Your task to perform on an android device: Open the Play Movies app and select the watchlist tab. Image 0: 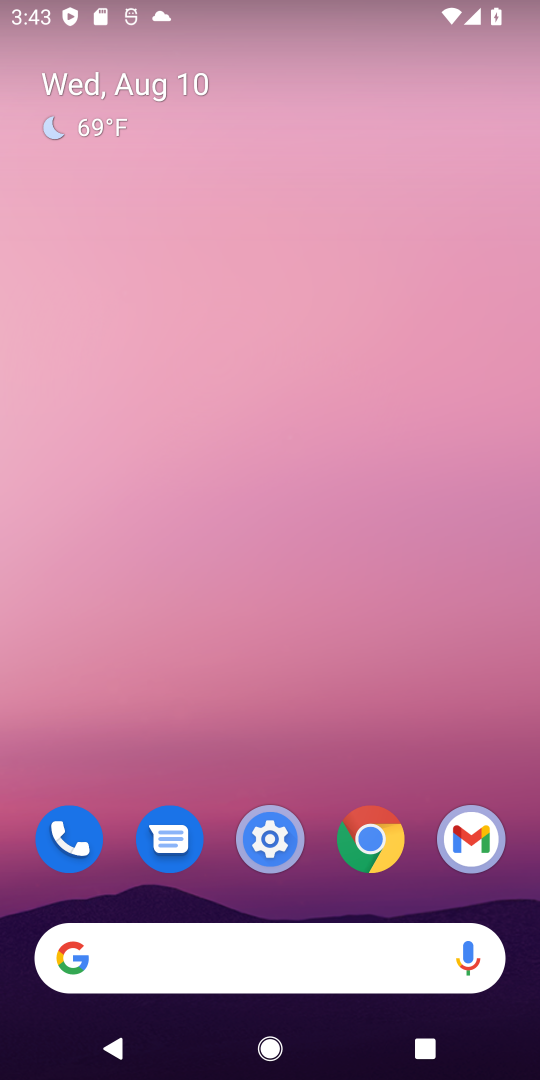
Step 0: drag from (334, 721) to (370, 2)
Your task to perform on an android device: Open the Play Movies app and select the watchlist tab. Image 1: 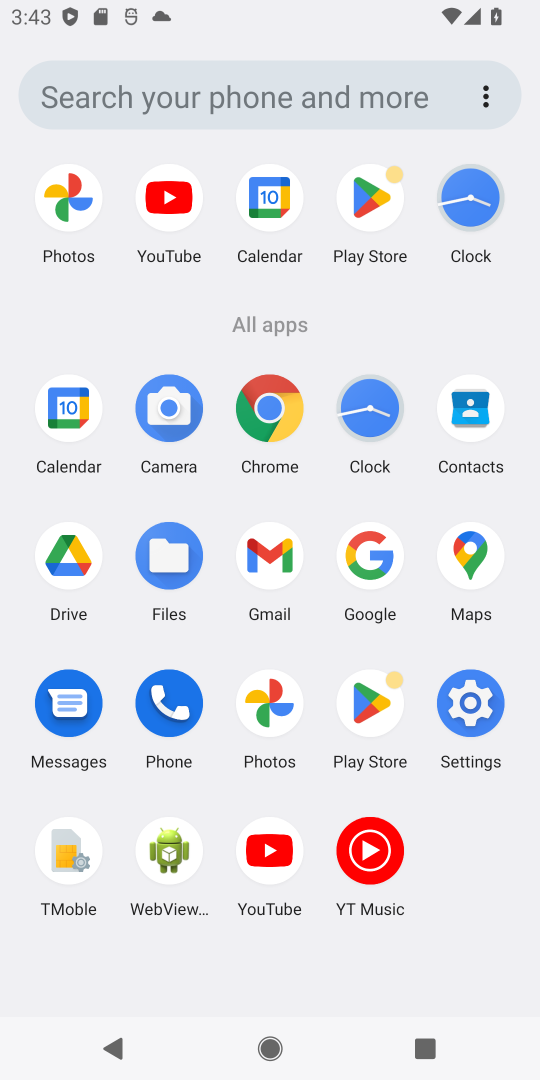
Step 1: task complete